Your task to perform on an android device: Go to display settings Image 0: 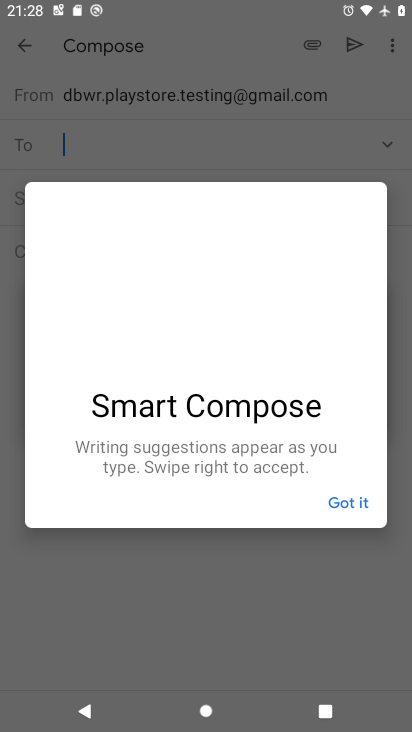
Step 0: press home button
Your task to perform on an android device: Go to display settings Image 1: 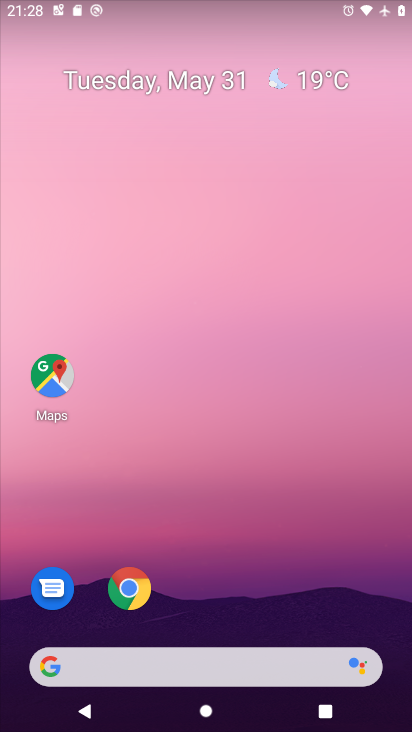
Step 1: drag from (139, 664) to (302, 43)
Your task to perform on an android device: Go to display settings Image 2: 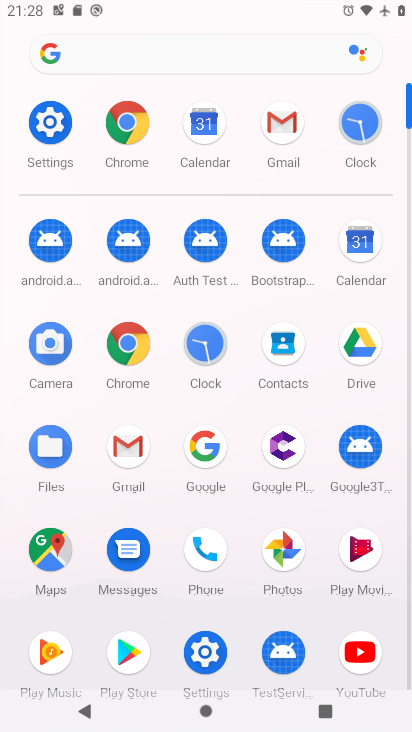
Step 2: click (53, 128)
Your task to perform on an android device: Go to display settings Image 3: 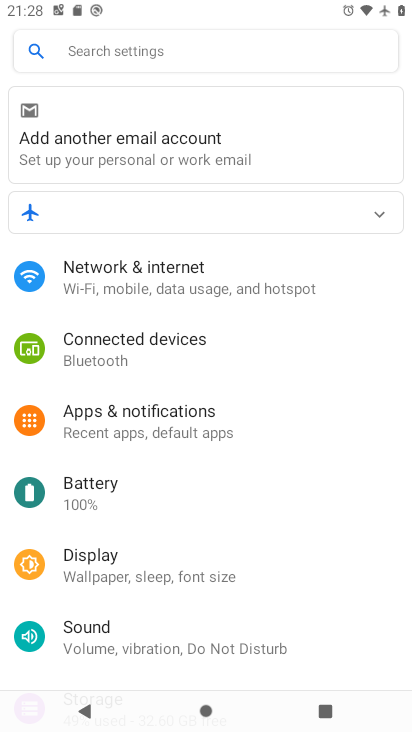
Step 3: click (107, 569)
Your task to perform on an android device: Go to display settings Image 4: 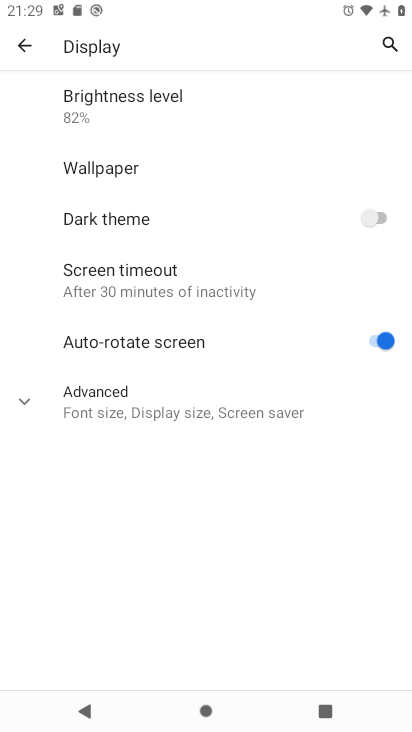
Step 4: task complete